Your task to perform on an android device: Open wifi settings Image 0: 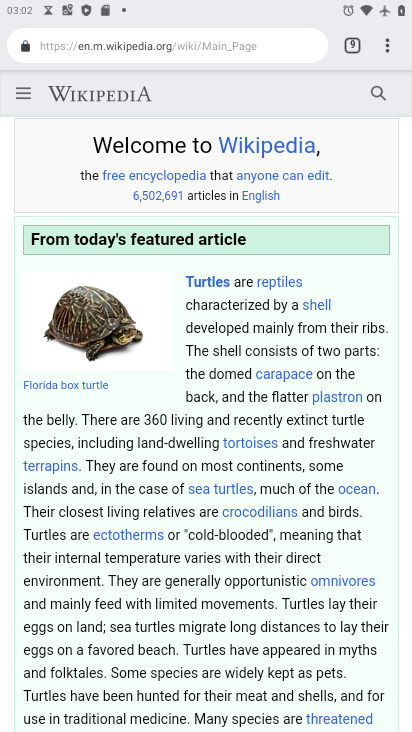
Step 0: press home button
Your task to perform on an android device: Open wifi settings Image 1: 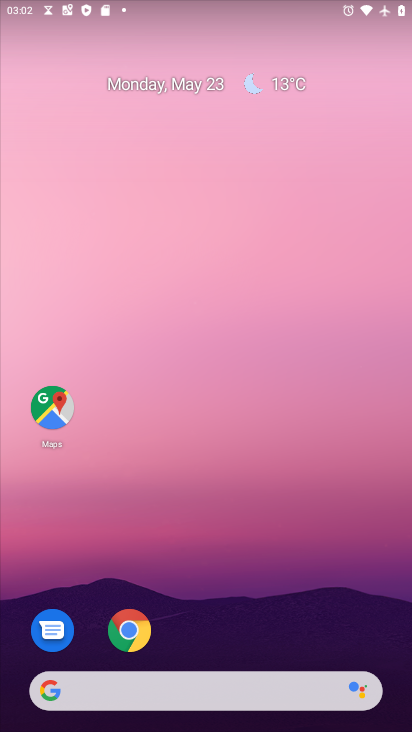
Step 1: drag from (293, 567) to (196, 32)
Your task to perform on an android device: Open wifi settings Image 2: 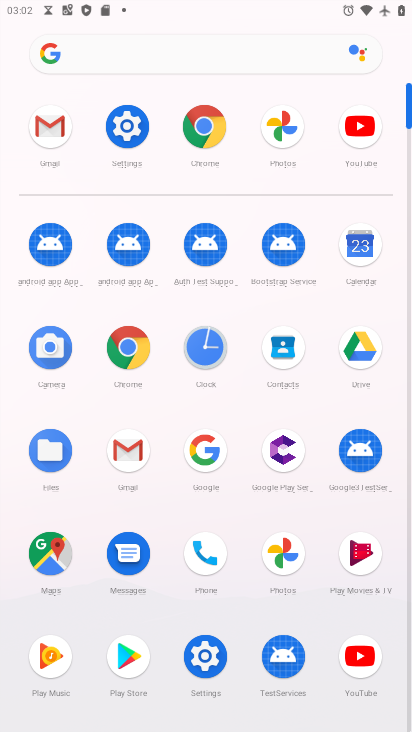
Step 2: click (128, 107)
Your task to perform on an android device: Open wifi settings Image 3: 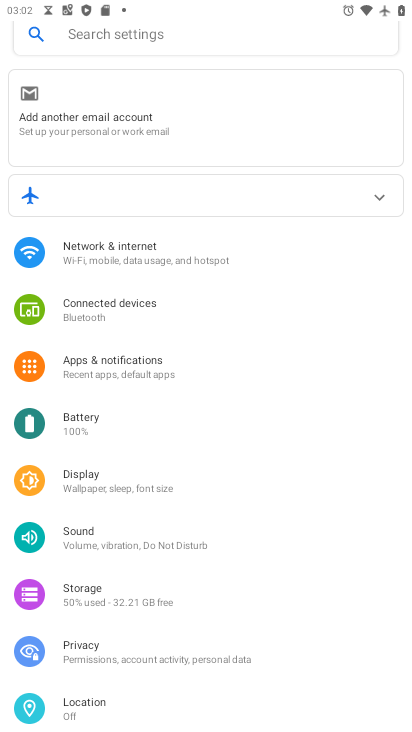
Step 3: click (203, 250)
Your task to perform on an android device: Open wifi settings Image 4: 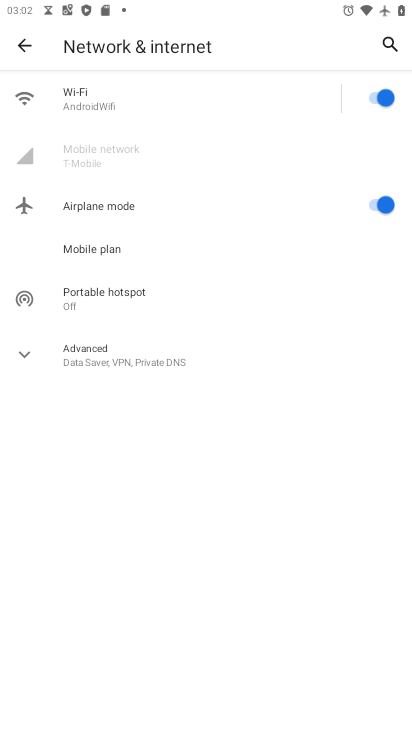
Step 4: click (145, 95)
Your task to perform on an android device: Open wifi settings Image 5: 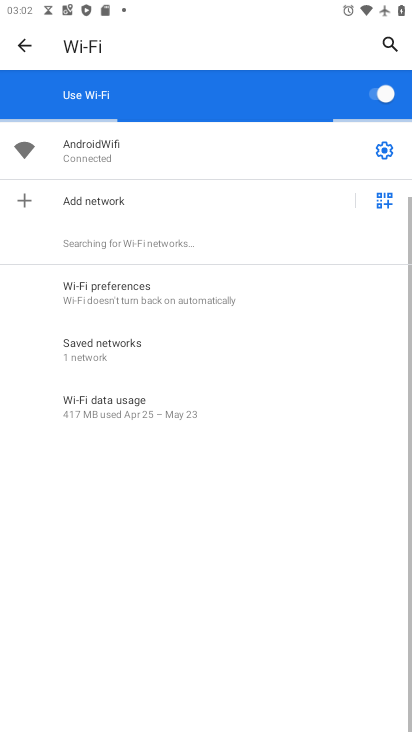
Step 5: task complete